Your task to perform on an android device: turn on data saver in the chrome app Image 0: 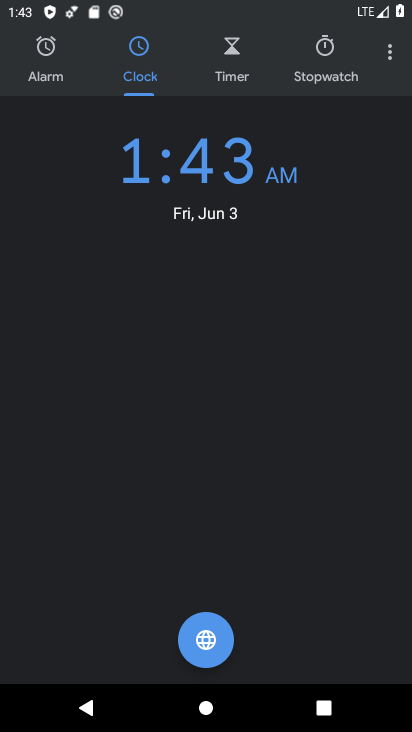
Step 0: press home button
Your task to perform on an android device: turn on data saver in the chrome app Image 1: 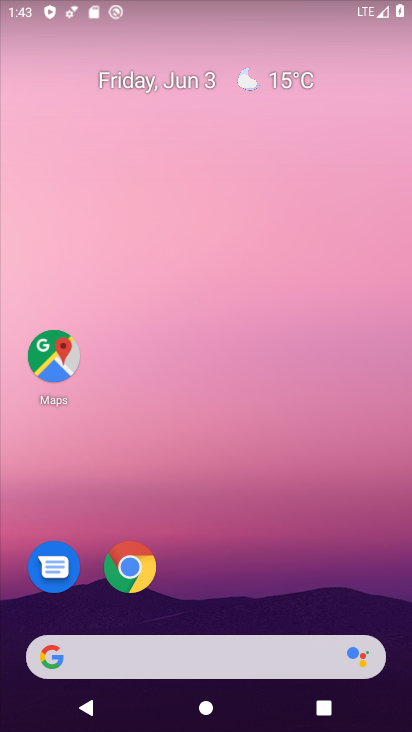
Step 1: click (134, 570)
Your task to perform on an android device: turn on data saver in the chrome app Image 2: 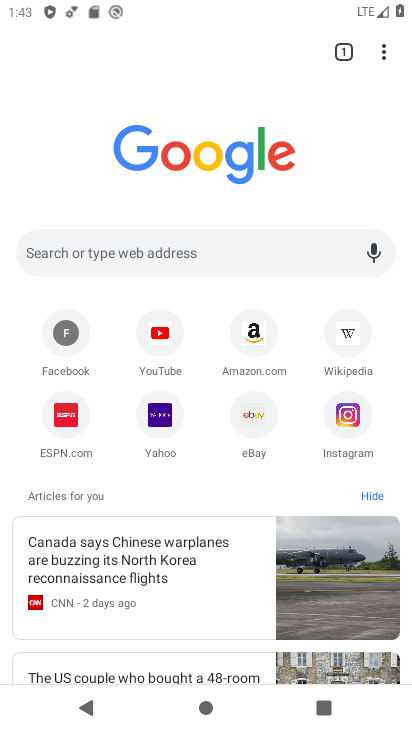
Step 2: click (382, 48)
Your task to perform on an android device: turn on data saver in the chrome app Image 3: 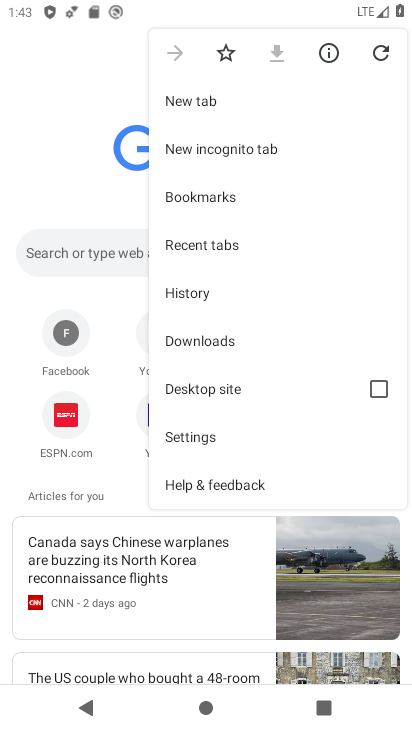
Step 3: click (199, 443)
Your task to perform on an android device: turn on data saver in the chrome app Image 4: 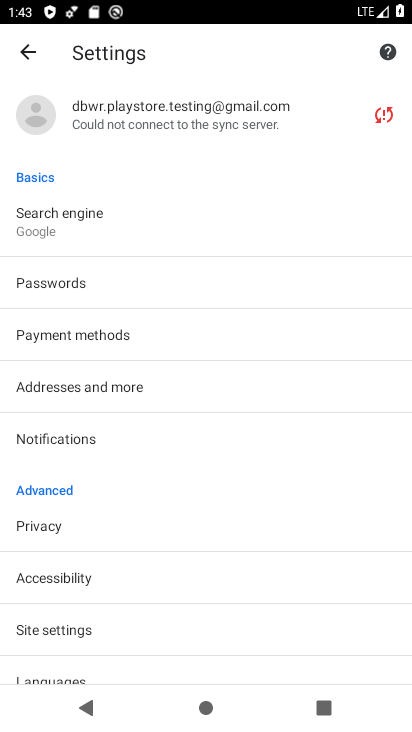
Step 4: drag from (93, 656) to (119, 381)
Your task to perform on an android device: turn on data saver in the chrome app Image 5: 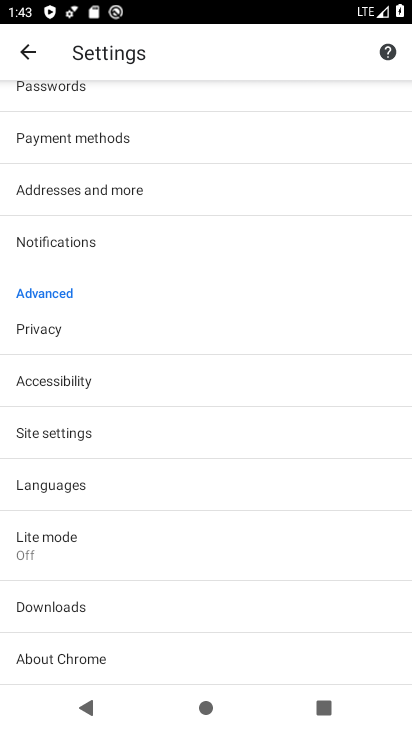
Step 5: click (65, 547)
Your task to perform on an android device: turn on data saver in the chrome app Image 6: 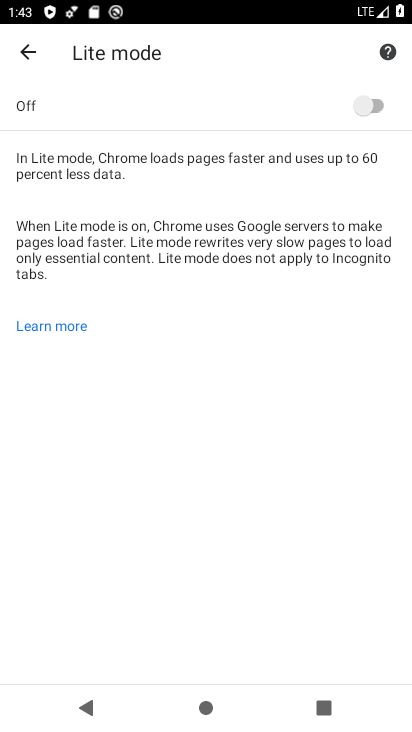
Step 6: click (376, 106)
Your task to perform on an android device: turn on data saver in the chrome app Image 7: 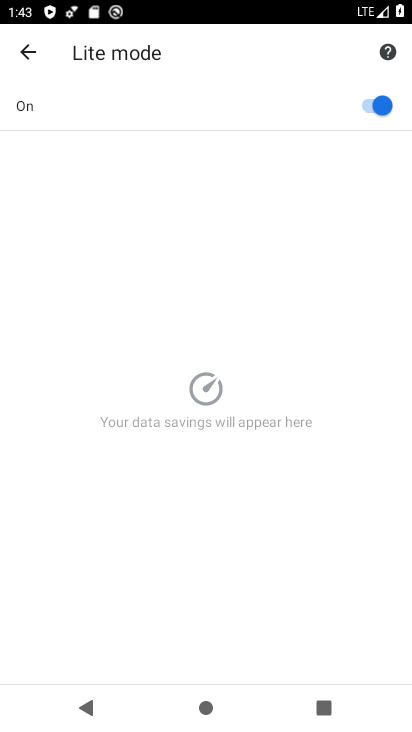
Step 7: task complete